Your task to perform on an android device: Open the Play Movies app and select the watchlist tab. Image 0: 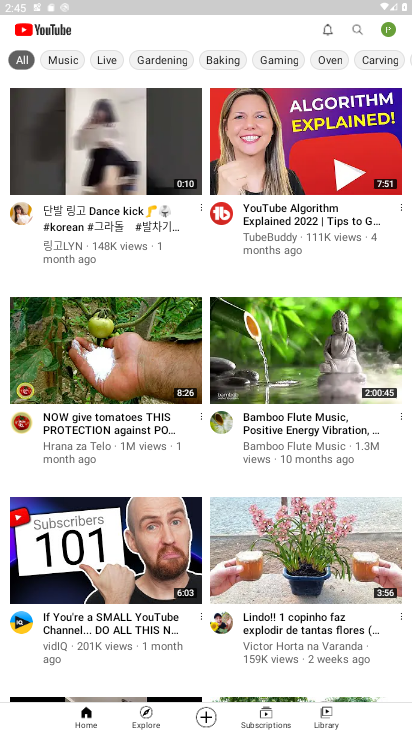
Step 0: press back button
Your task to perform on an android device: Open the Play Movies app and select the watchlist tab. Image 1: 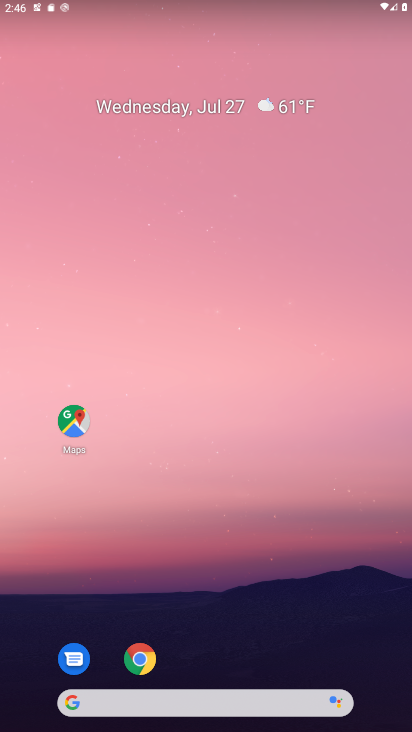
Step 1: click (171, 170)
Your task to perform on an android device: Open the Play Movies app and select the watchlist tab. Image 2: 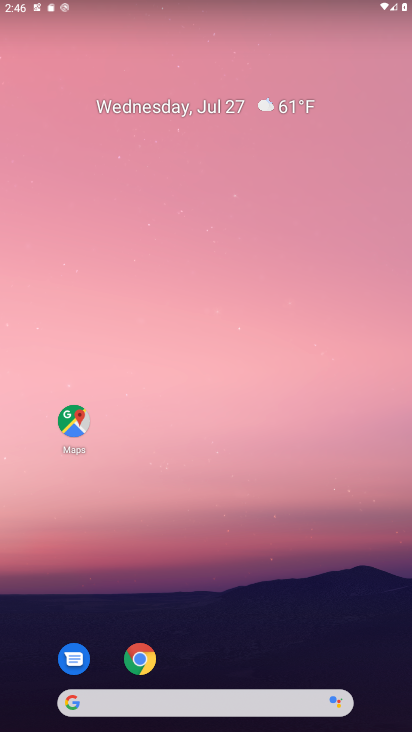
Step 2: drag from (150, 217) to (126, 107)
Your task to perform on an android device: Open the Play Movies app and select the watchlist tab. Image 3: 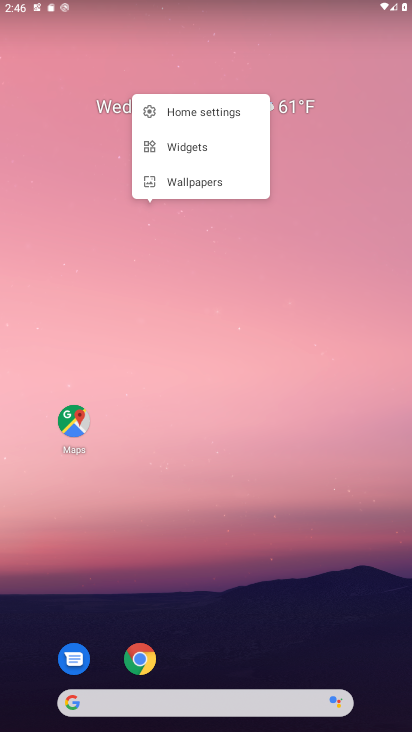
Step 3: drag from (219, 500) to (182, 225)
Your task to perform on an android device: Open the Play Movies app and select the watchlist tab. Image 4: 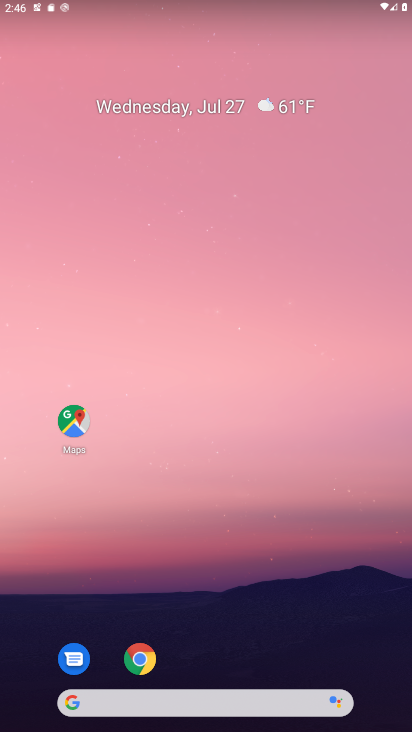
Step 4: drag from (206, 469) to (152, 129)
Your task to perform on an android device: Open the Play Movies app and select the watchlist tab. Image 5: 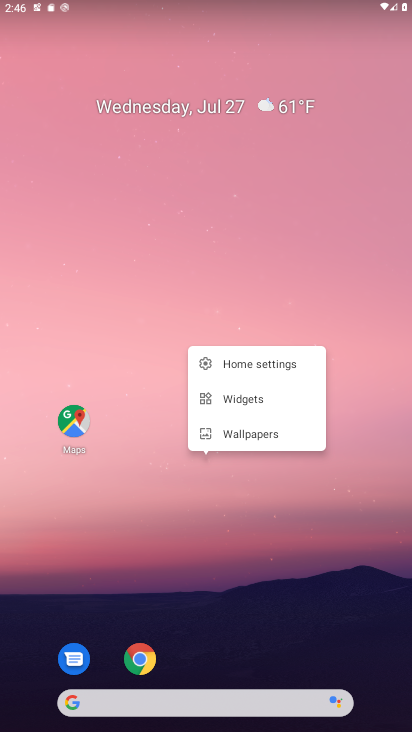
Step 5: click (193, 212)
Your task to perform on an android device: Open the Play Movies app and select the watchlist tab. Image 6: 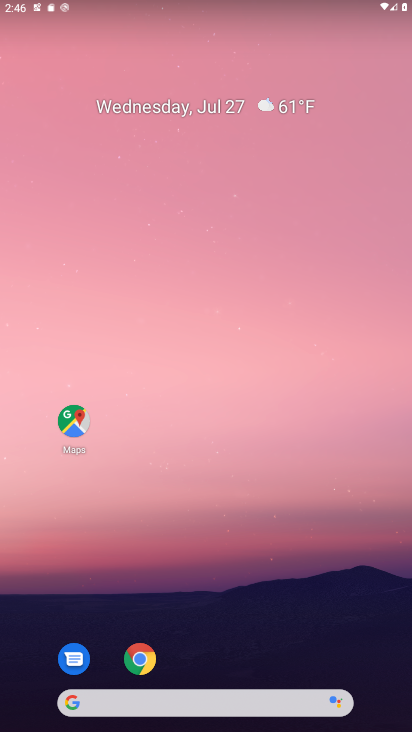
Step 6: drag from (199, 686) to (200, 272)
Your task to perform on an android device: Open the Play Movies app and select the watchlist tab. Image 7: 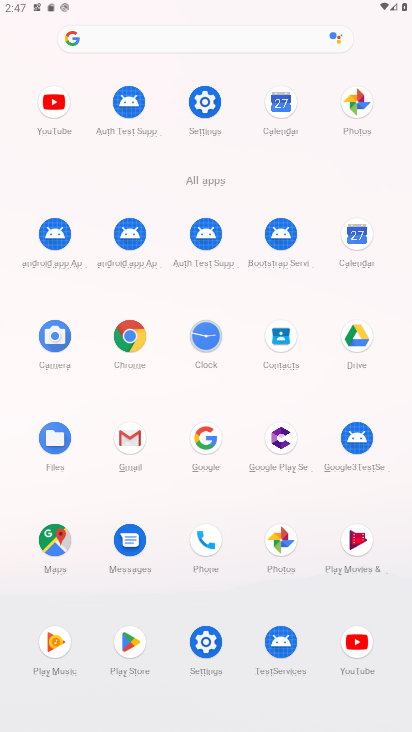
Step 7: click (363, 536)
Your task to perform on an android device: Open the Play Movies app and select the watchlist tab. Image 8: 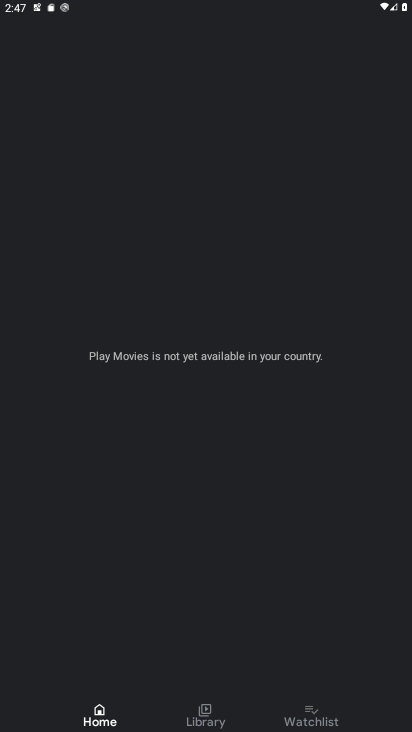
Step 8: click (303, 719)
Your task to perform on an android device: Open the Play Movies app and select the watchlist tab. Image 9: 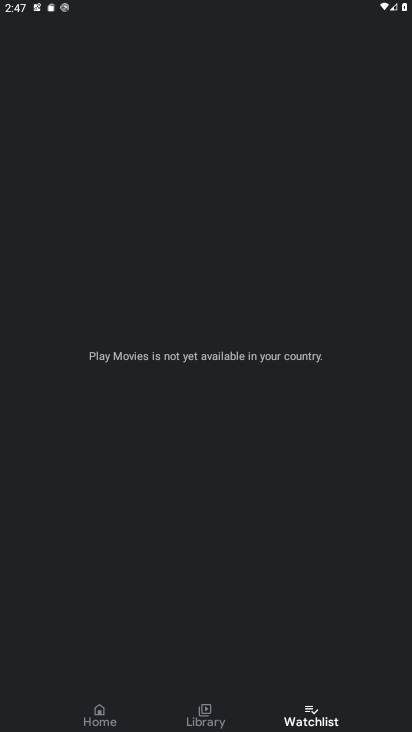
Step 9: task complete